Your task to perform on an android device: uninstall "Google Calendar" Image 0: 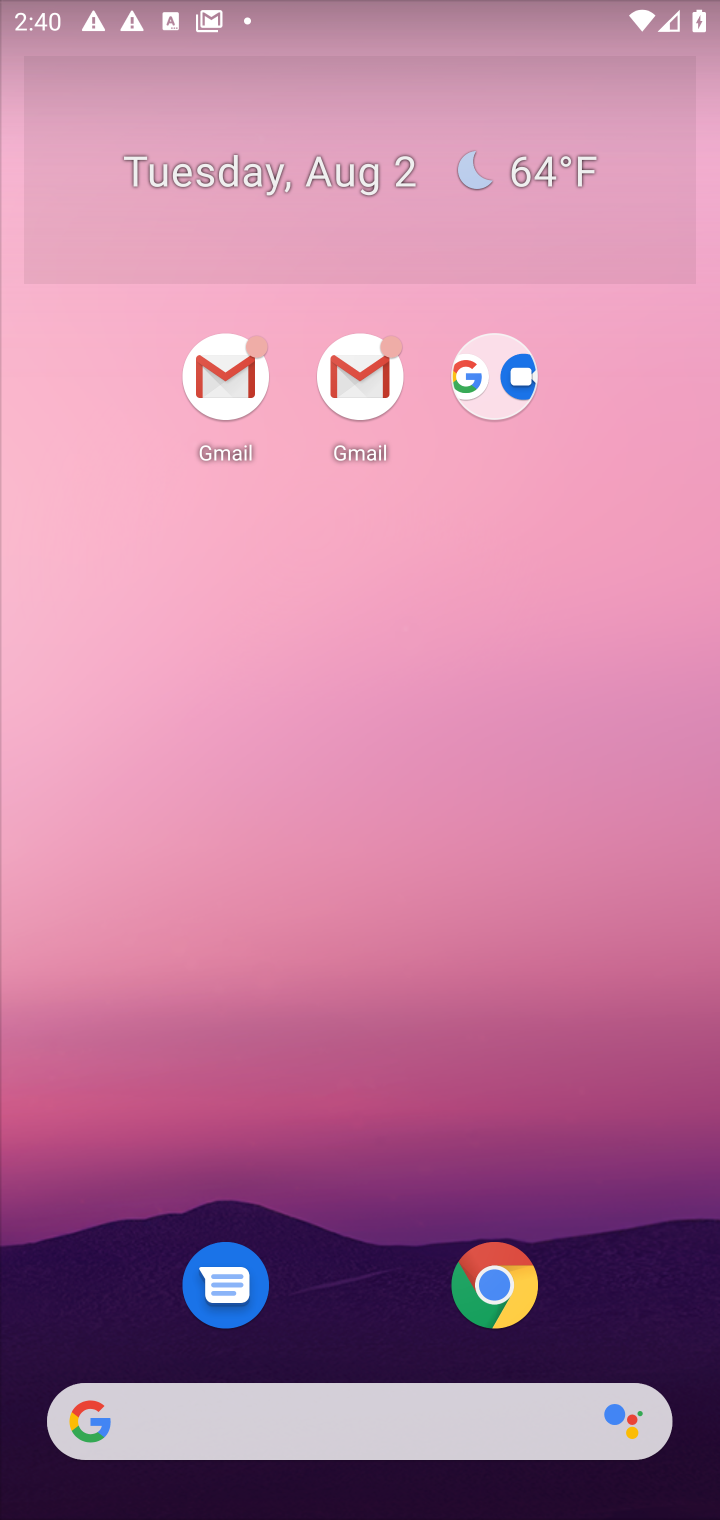
Step 0: drag from (326, 729) to (382, 134)
Your task to perform on an android device: uninstall "Google Calendar" Image 1: 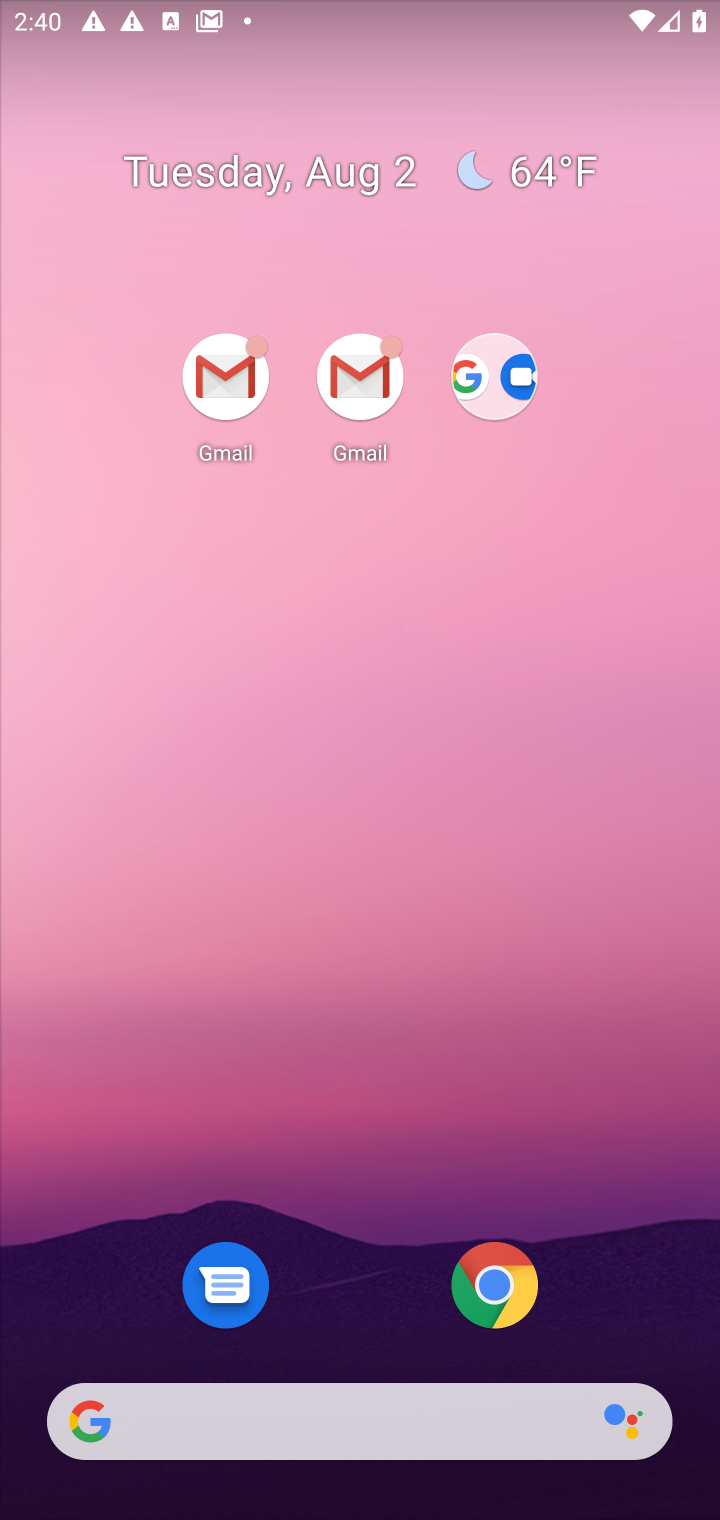
Step 1: drag from (343, 1310) to (368, 160)
Your task to perform on an android device: uninstall "Google Calendar" Image 2: 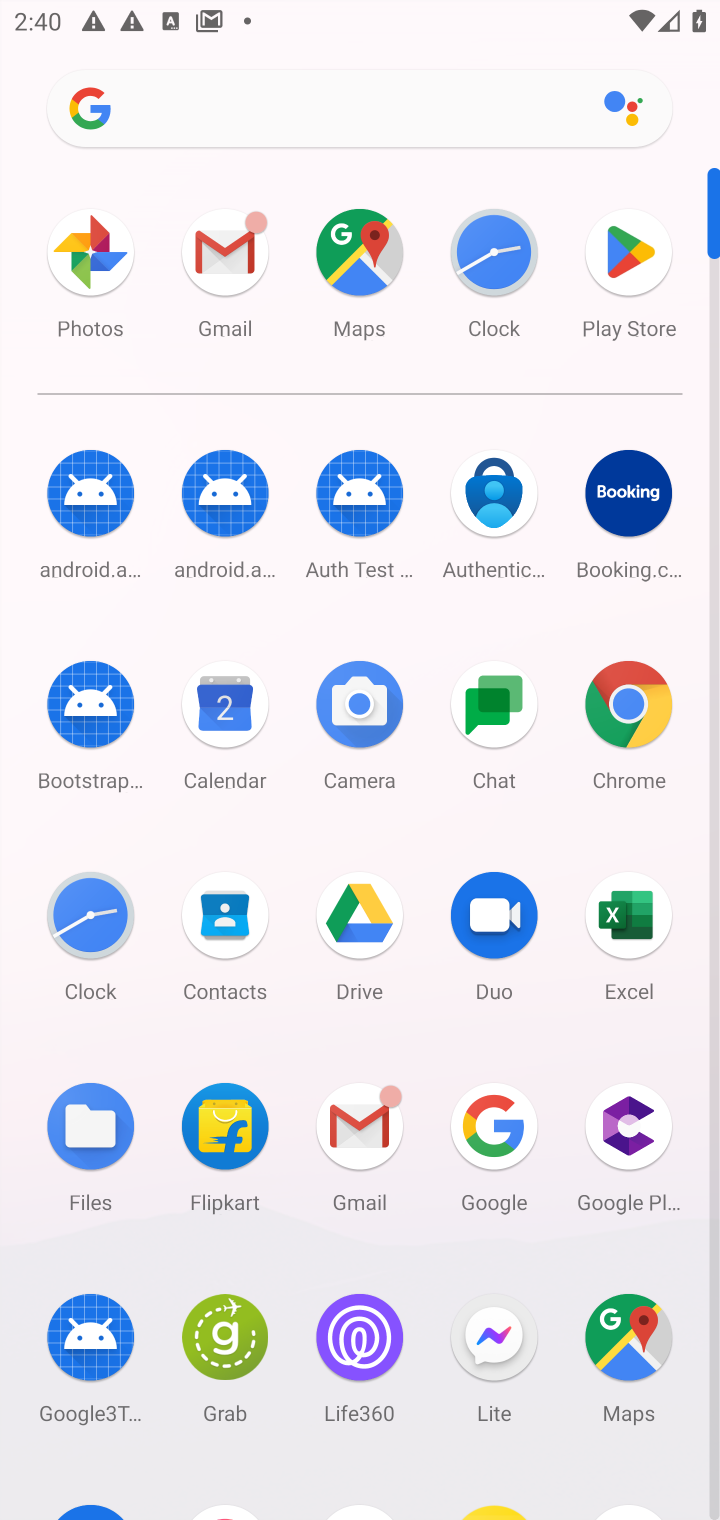
Step 2: drag from (431, 1278) to (433, 557)
Your task to perform on an android device: uninstall "Google Calendar" Image 3: 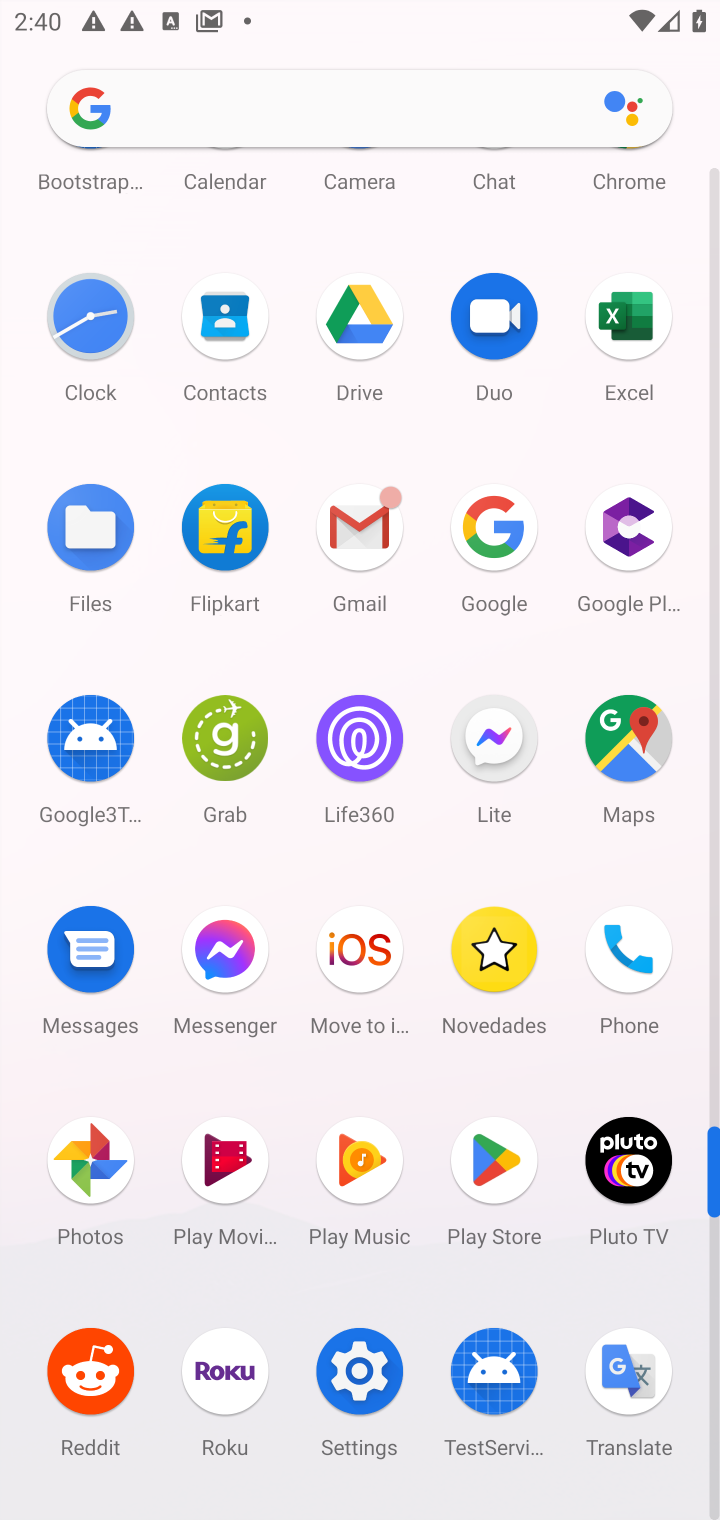
Step 3: click (481, 1171)
Your task to perform on an android device: uninstall "Google Calendar" Image 4: 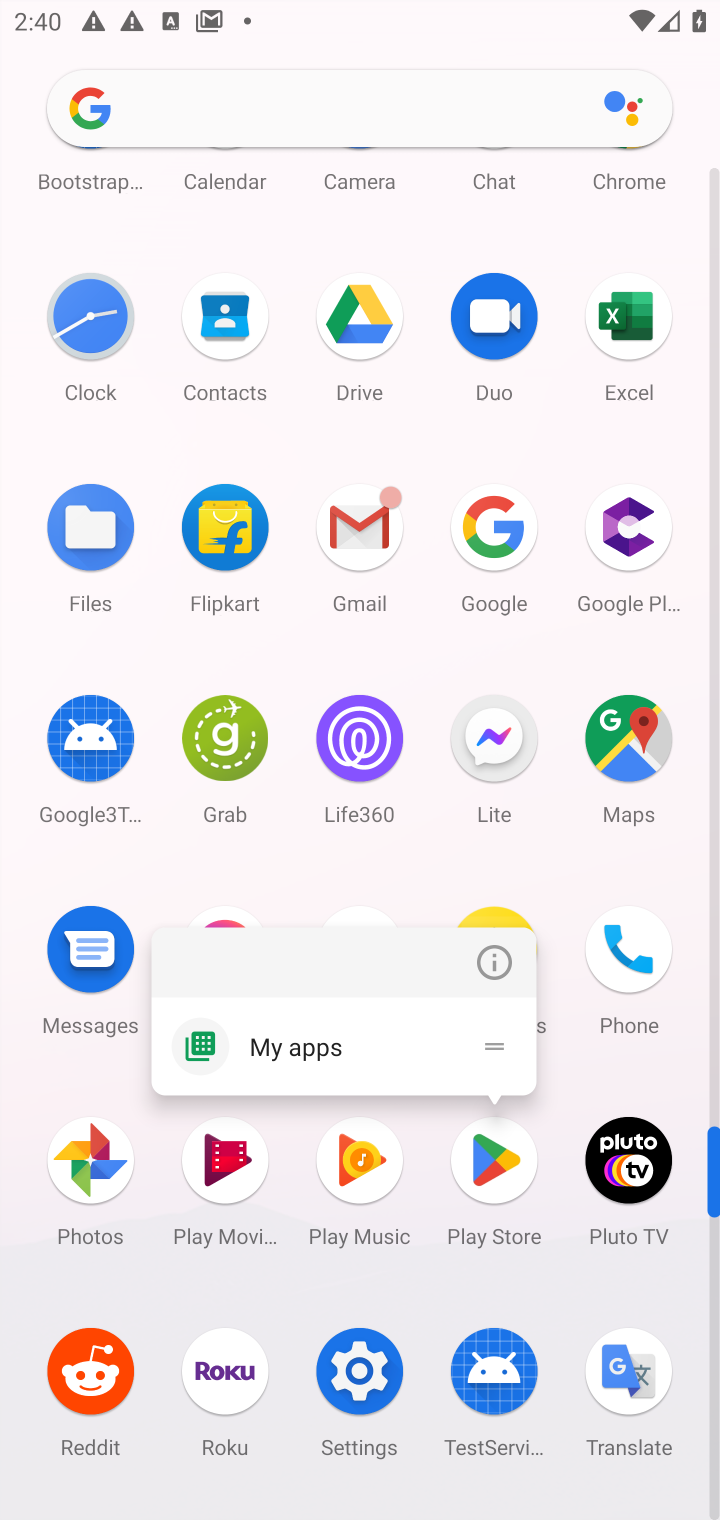
Step 4: click (481, 1171)
Your task to perform on an android device: uninstall "Google Calendar" Image 5: 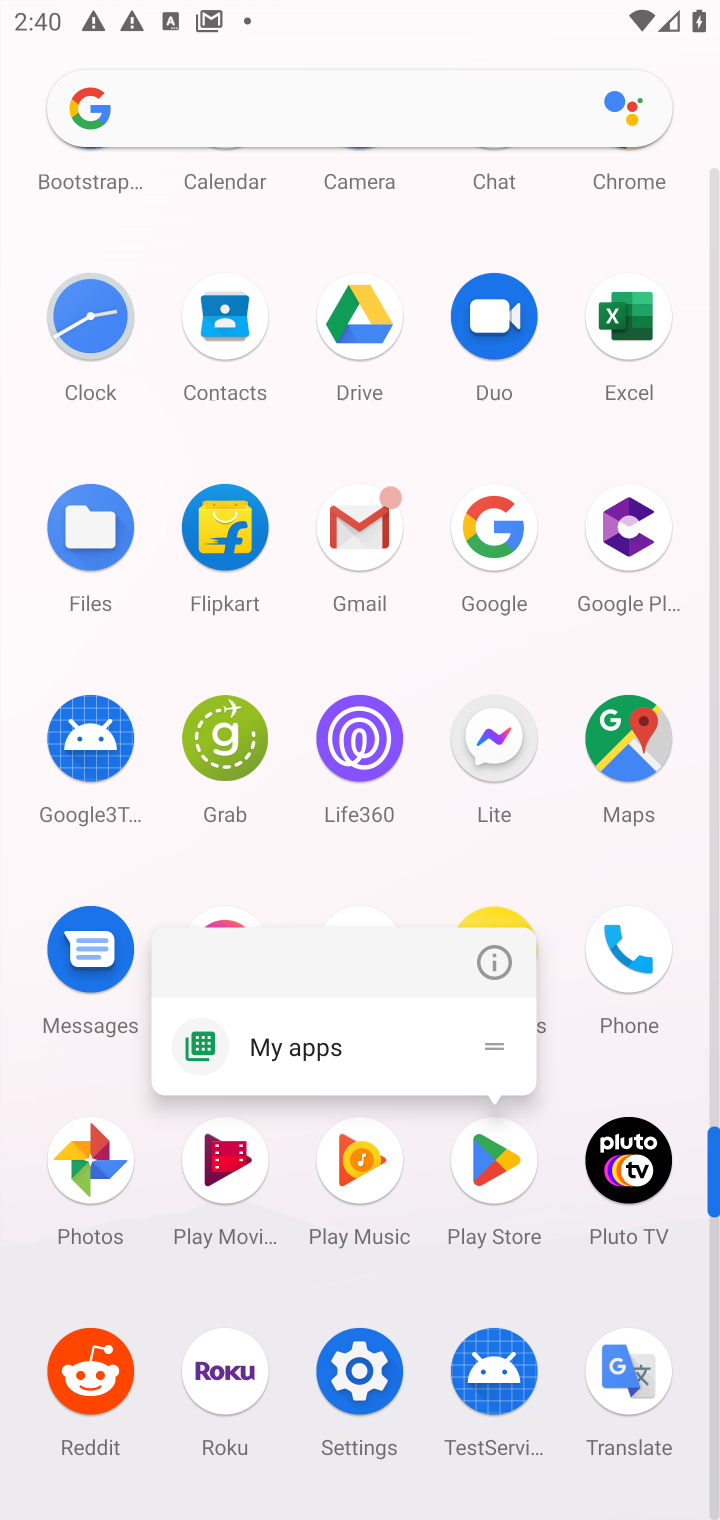
Step 5: click (514, 1148)
Your task to perform on an android device: uninstall "Google Calendar" Image 6: 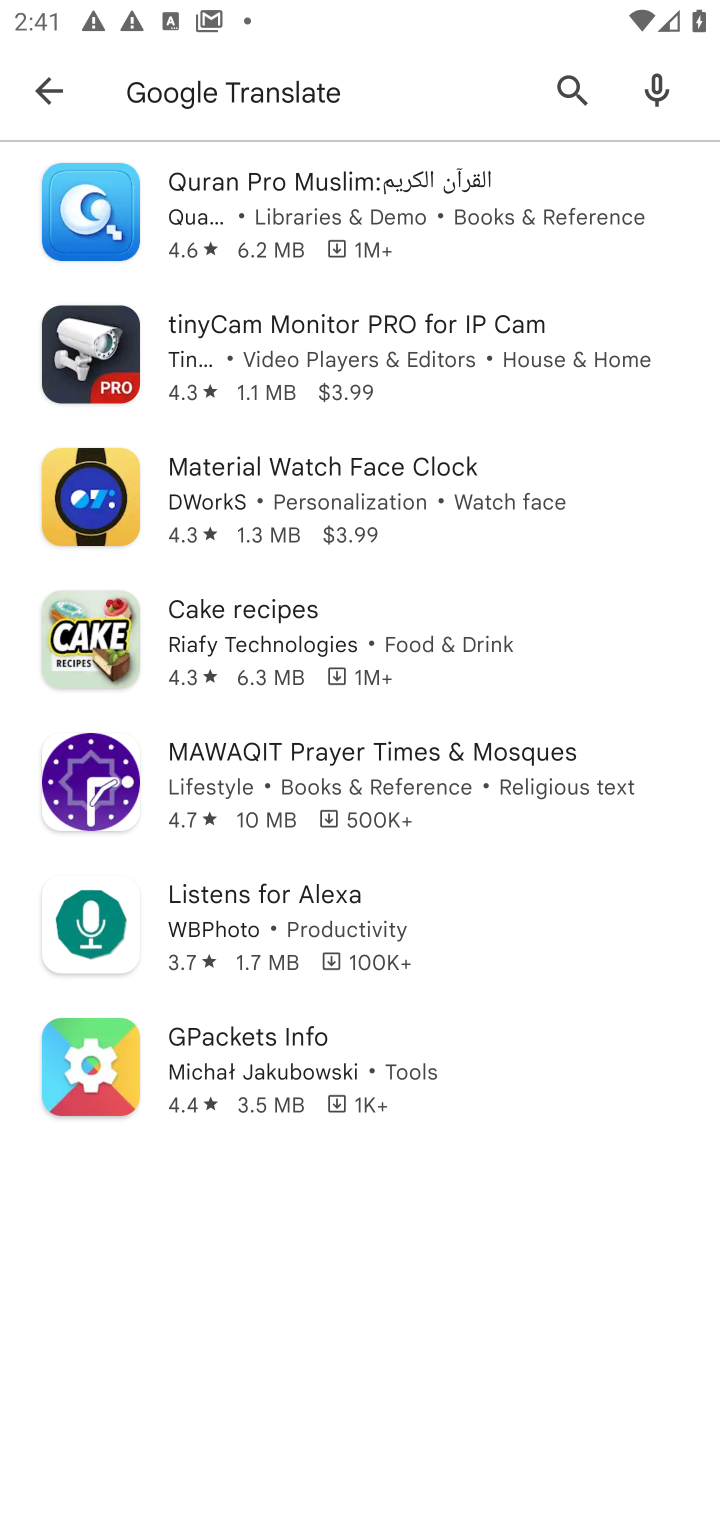
Step 6: click (427, 109)
Your task to perform on an android device: uninstall "Google Calendar" Image 7: 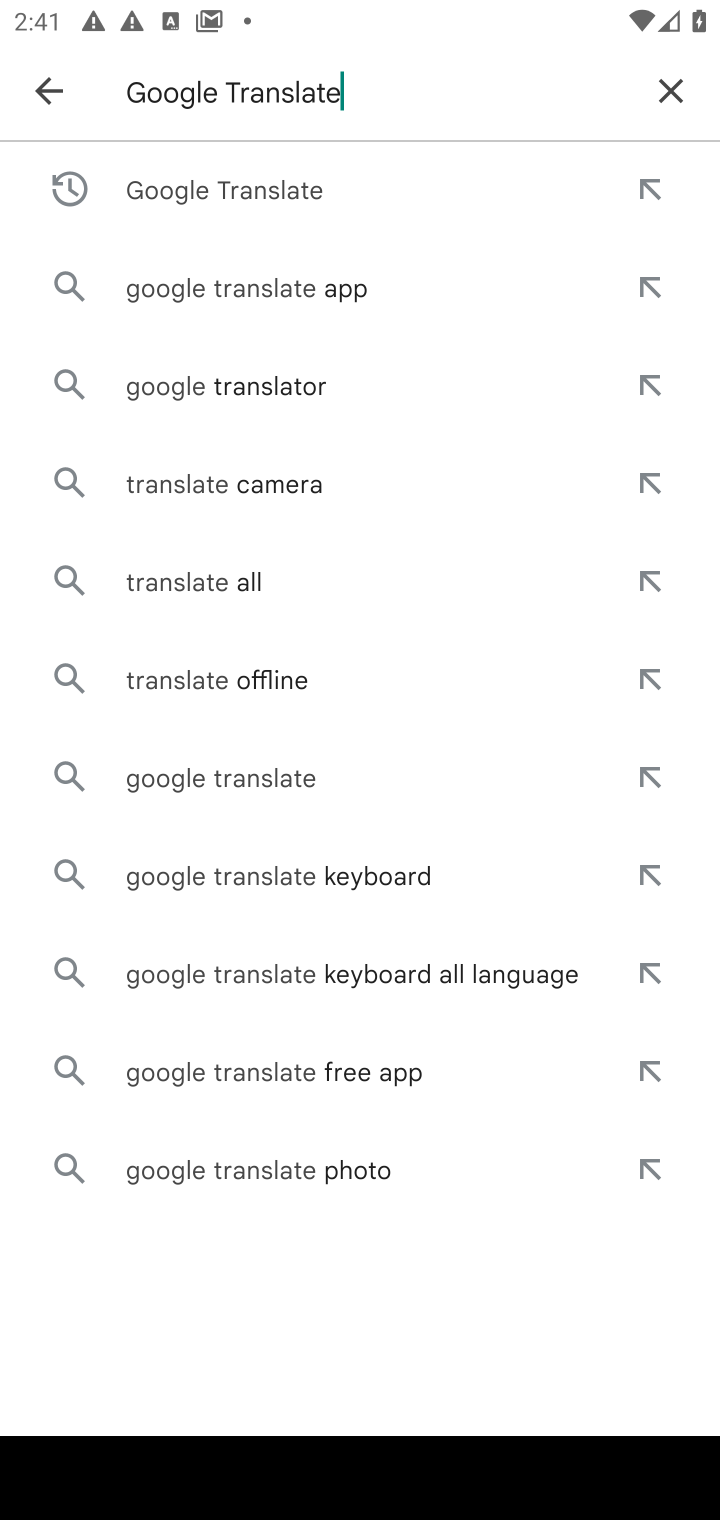
Step 7: click (662, 87)
Your task to perform on an android device: uninstall "Google Calendar" Image 8: 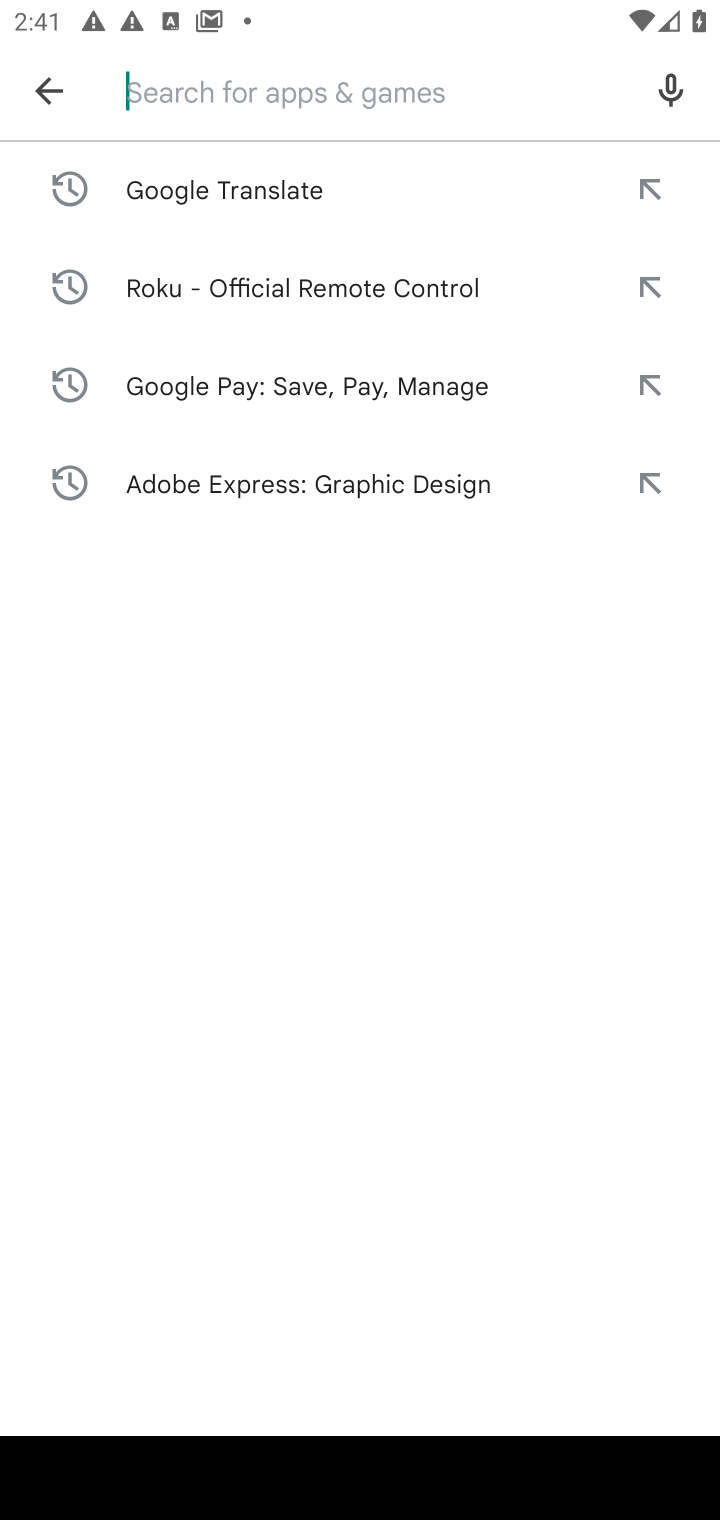
Step 8: type "Google Calendar"
Your task to perform on an android device: uninstall "Google Calendar" Image 9: 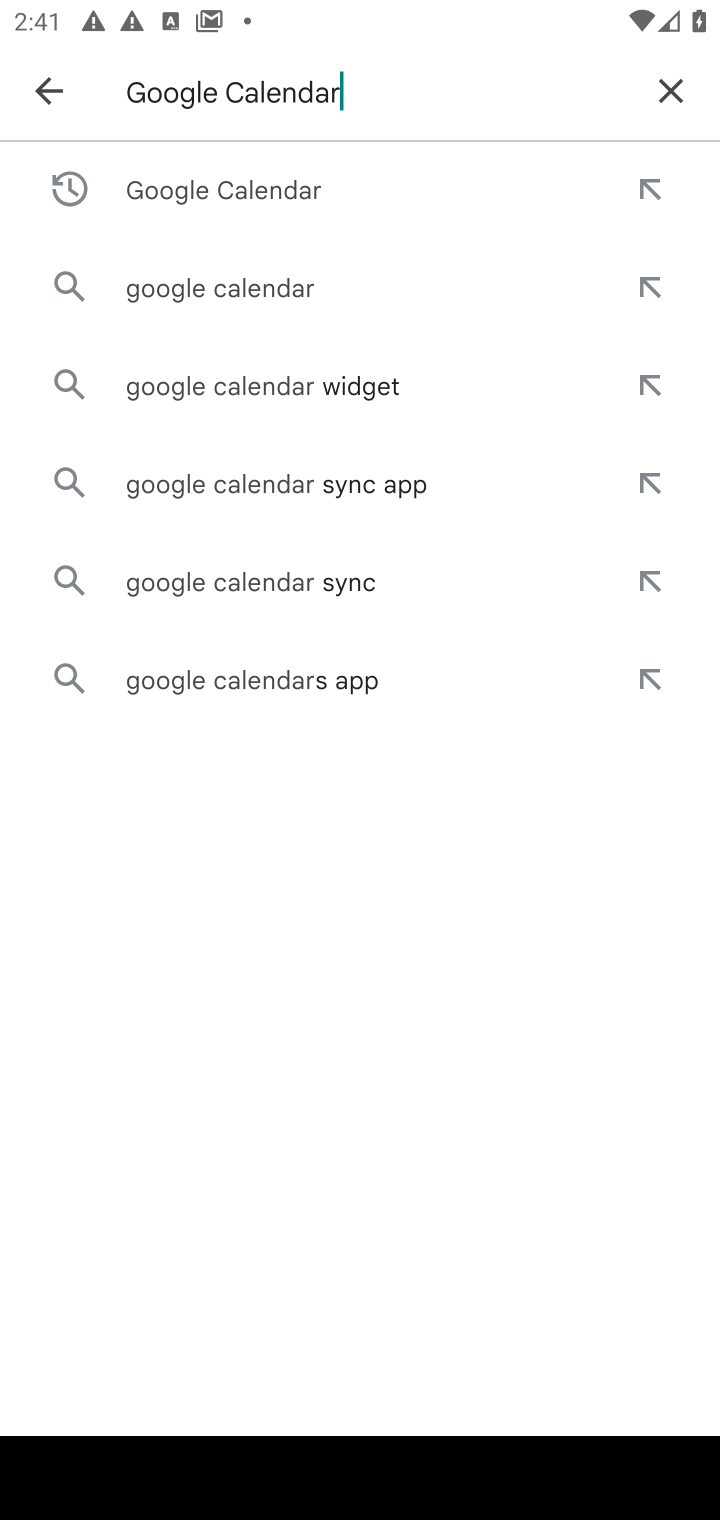
Step 9: press enter
Your task to perform on an android device: uninstall "Google Calendar" Image 10: 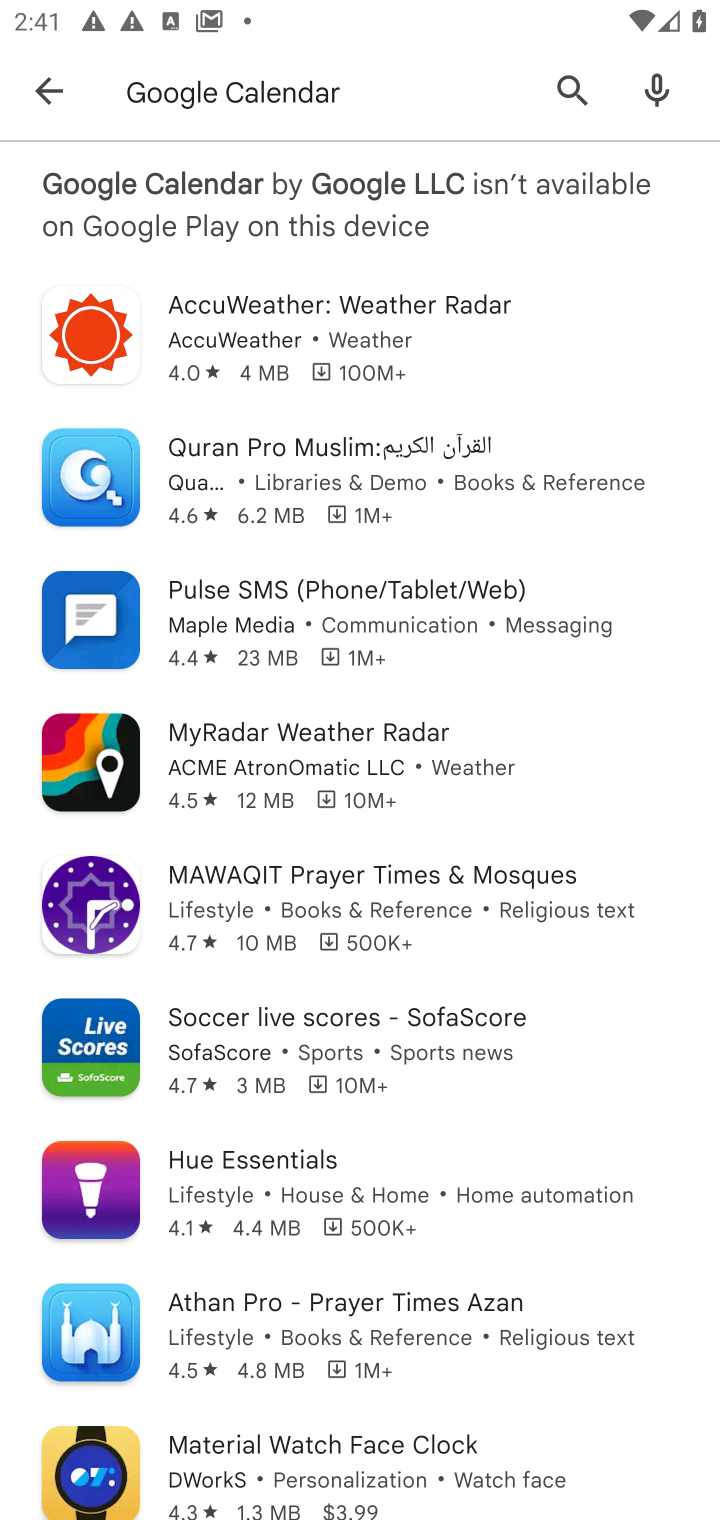
Step 10: task complete